Your task to perform on an android device: turn on bluetooth scan Image 0: 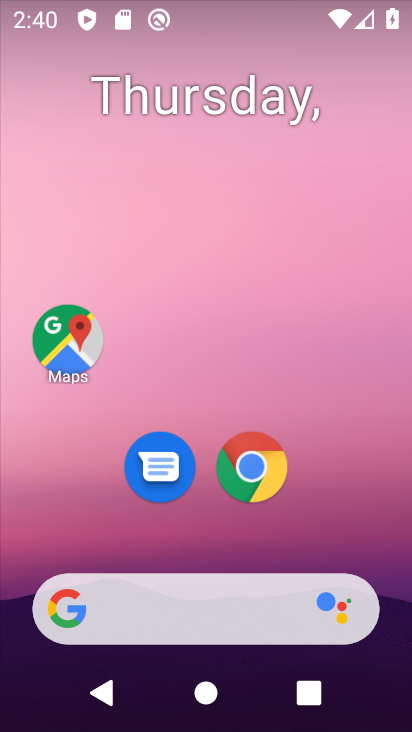
Step 0: press home button
Your task to perform on an android device: turn on bluetooth scan Image 1: 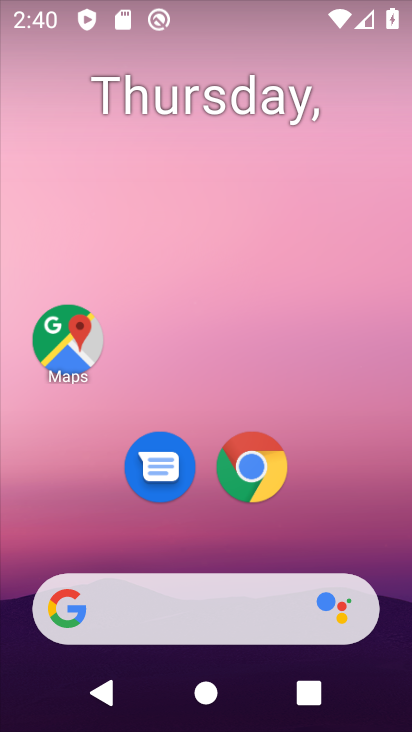
Step 1: drag from (192, 622) to (237, 136)
Your task to perform on an android device: turn on bluetooth scan Image 2: 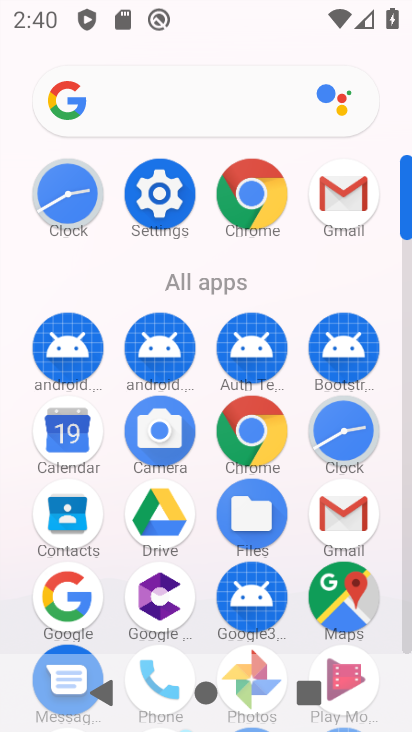
Step 2: click (168, 215)
Your task to perform on an android device: turn on bluetooth scan Image 3: 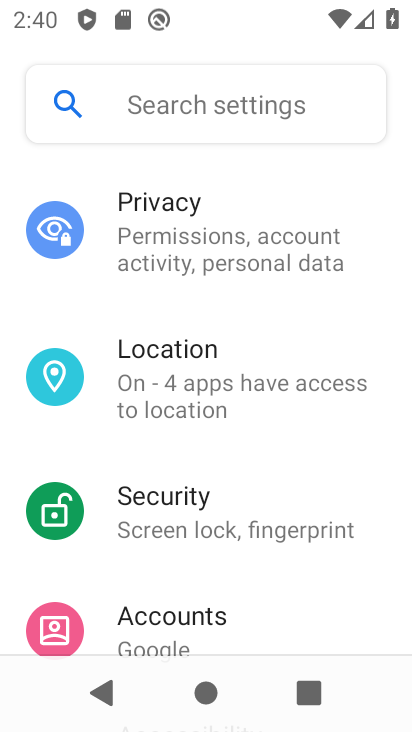
Step 3: click (164, 405)
Your task to perform on an android device: turn on bluetooth scan Image 4: 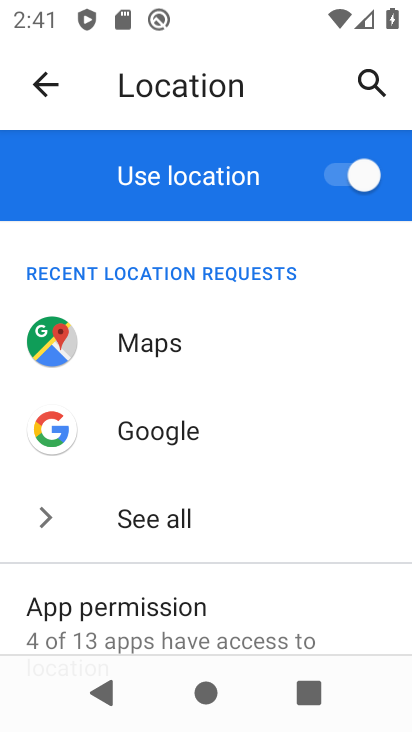
Step 4: drag from (175, 567) to (317, 13)
Your task to perform on an android device: turn on bluetooth scan Image 5: 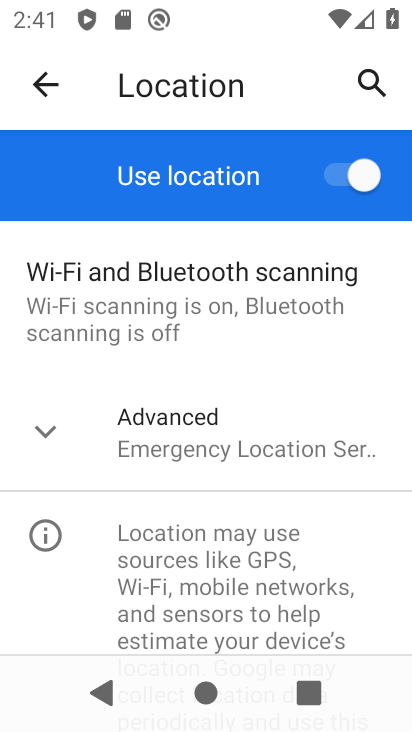
Step 5: click (234, 325)
Your task to perform on an android device: turn on bluetooth scan Image 6: 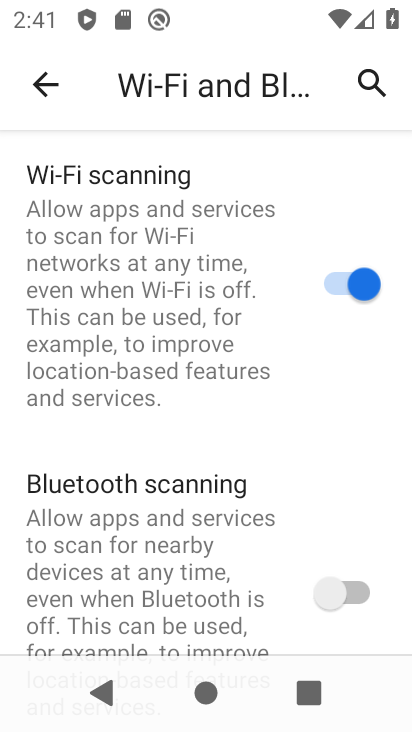
Step 6: click (339, 594)
Your task to perform on an android device: turn on bluetooth scan Image 7: 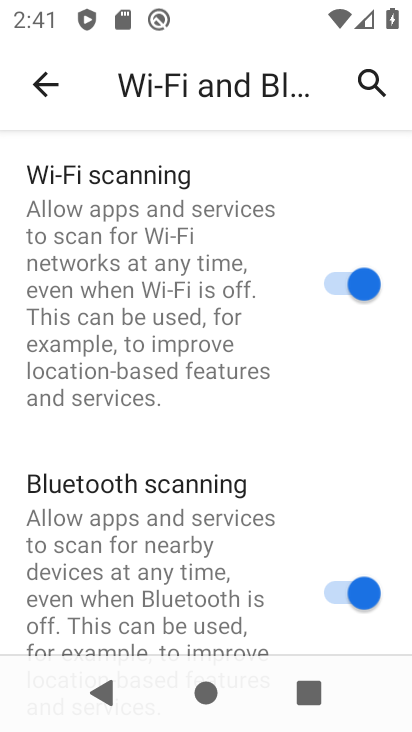
Step 7: task complete